Your task to perform on an android device: move an email to a new category in the gmail app Image 0: 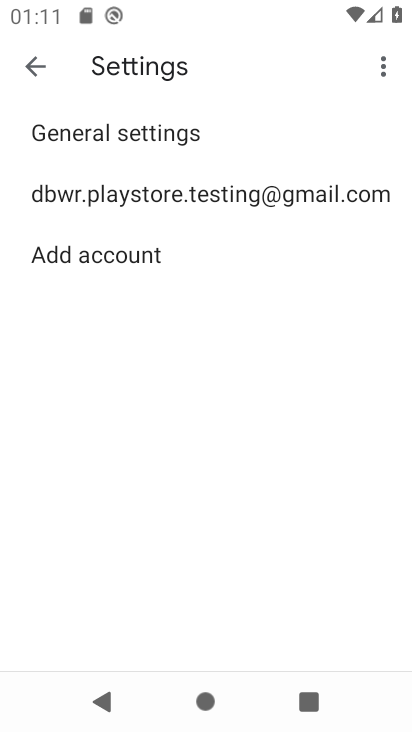
Step 0: press home button
Your task to perform on an android device: move an email to a new category in the gmail app Image 1: 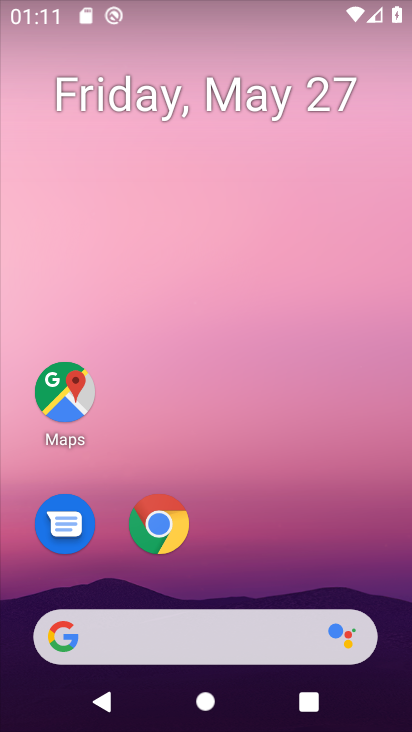
Step 1: drag from (310, 539) to (262, 21)
Your task to perform on an android device: move an email to a new category in the gmail app Image 2: 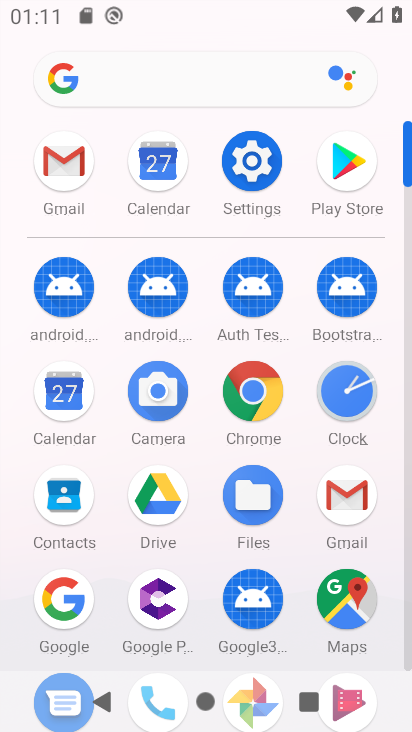
Step 2: click (64, 167)
Your task to perform on an android device: move an email to a new category in the gmail app Image 3: 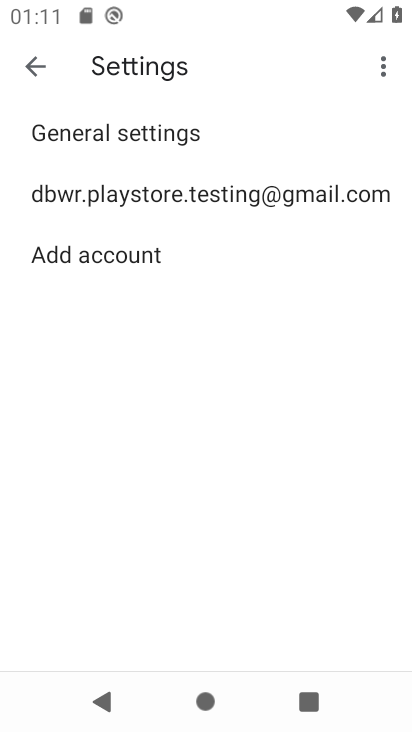
Step 3: click (36, 60)
Your task to perform on an android device: move an email to a new category in the gmail app Image 4: 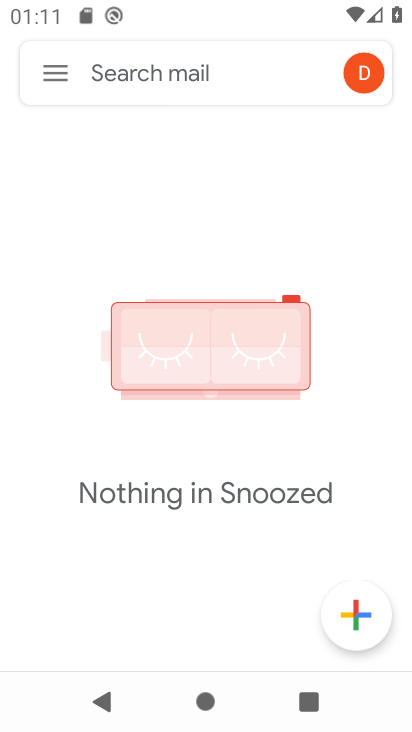
Step 4: click (40, 64)
Your task to perform on an android device: move an email to a new category in the gmail app Image 5: 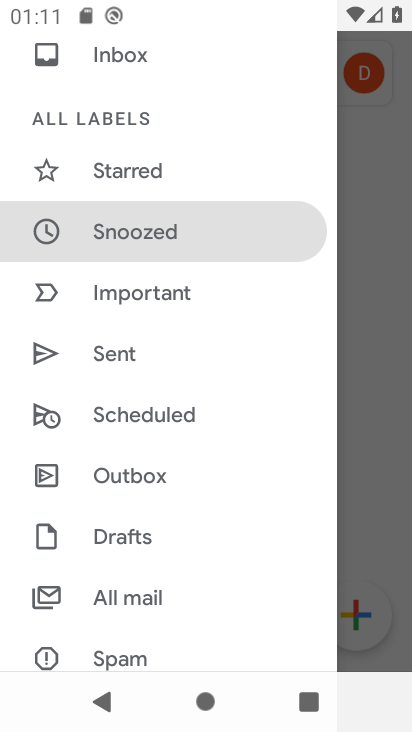
Step 5: click (196, 597)
Your task to perform on an android device: move an email to a new category in the gmail app Image 6: 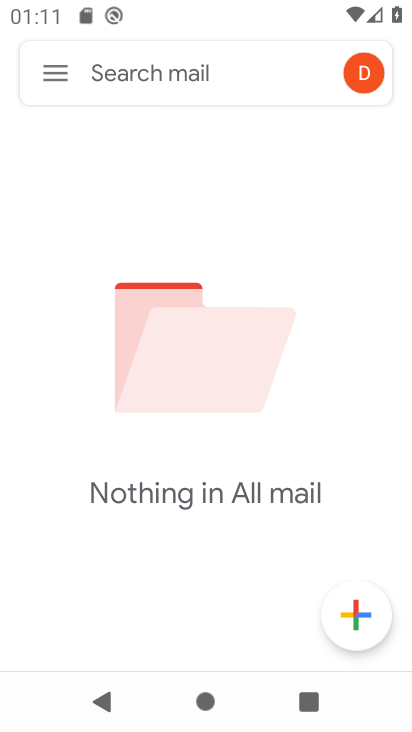
Step 6: task complete